Your task to perform on an android device: Turn on the flashlight Image 0: 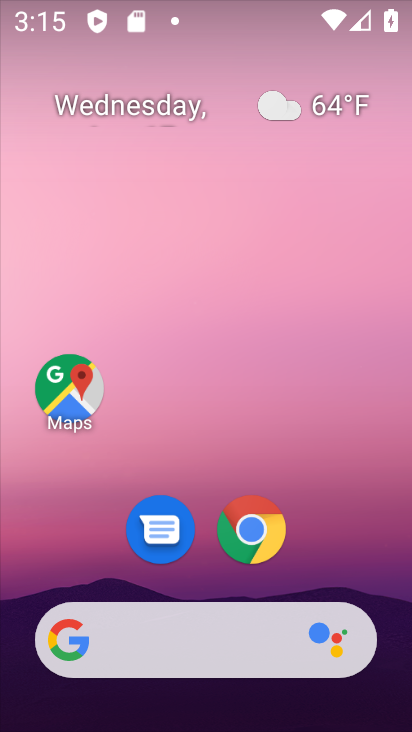
Step 0: drag from (142, 5) to (137, 475)
Your task to perform on an android device: Turn on the flashlight Image 1: 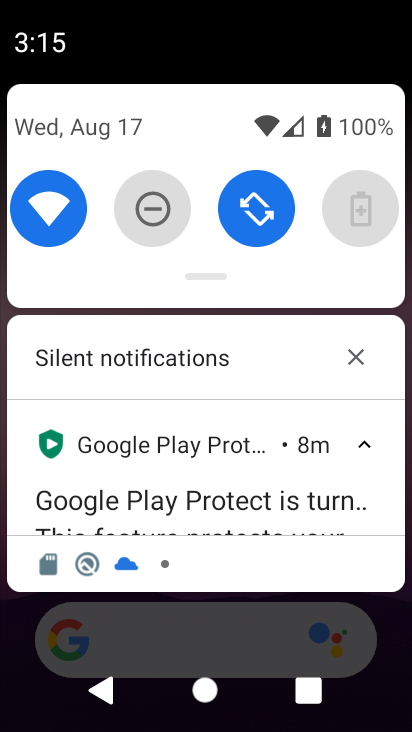
Step 1: task complete